Your task to perform on an android device: toggle sleep mode Image 0: 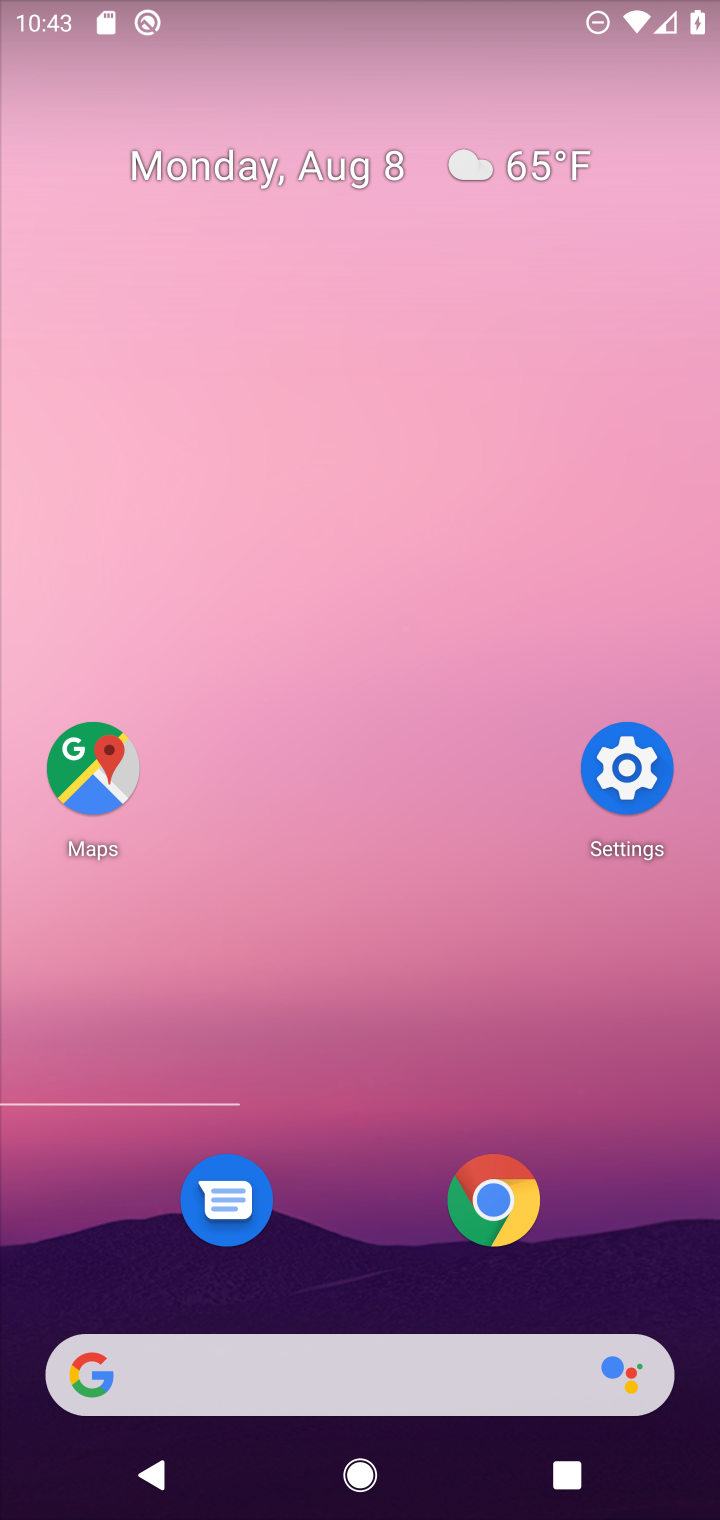
Step 0: click (634, 753)
Your task to perform on an android device: toggle sleep mode Image 1: 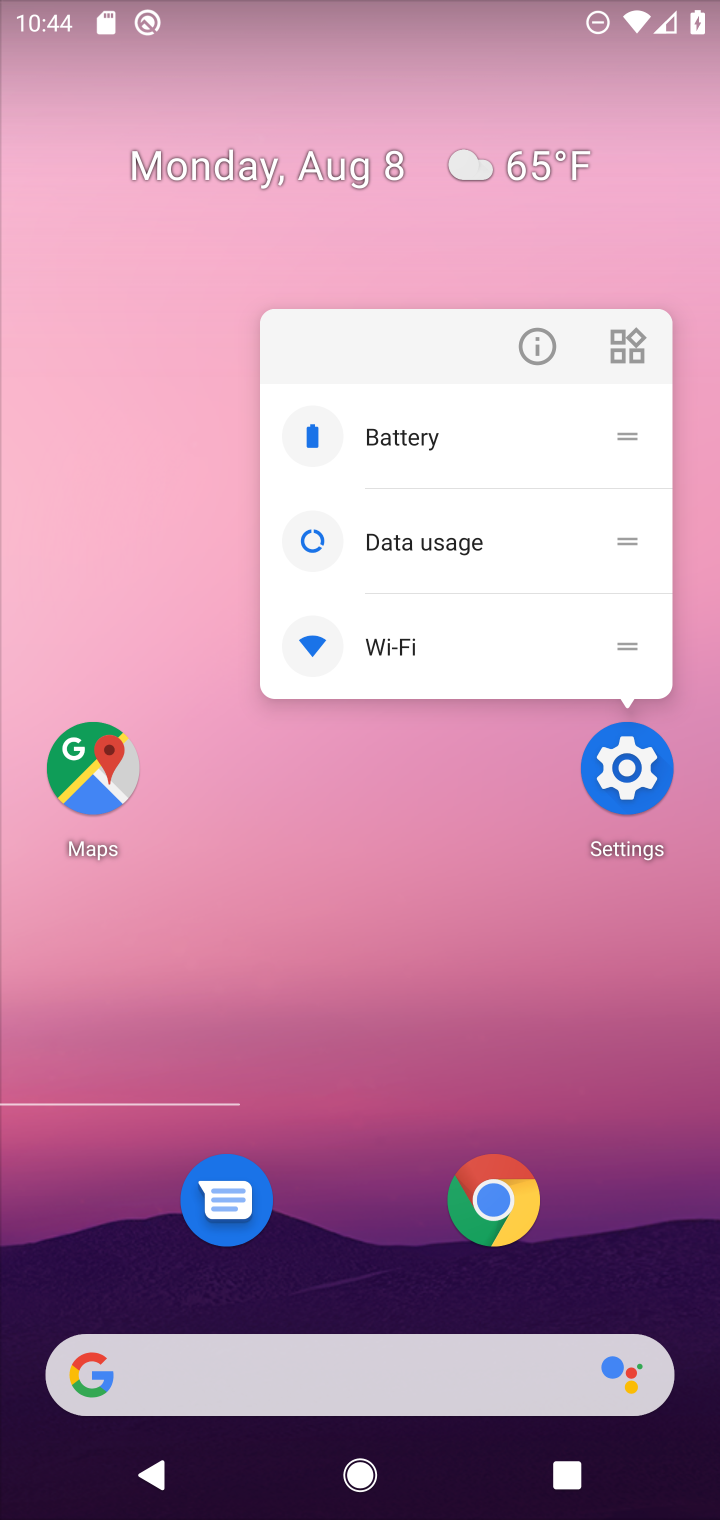
Step 1: click (628, 769)
Your task to perform on an android device: toggle sleep mode Image 2: 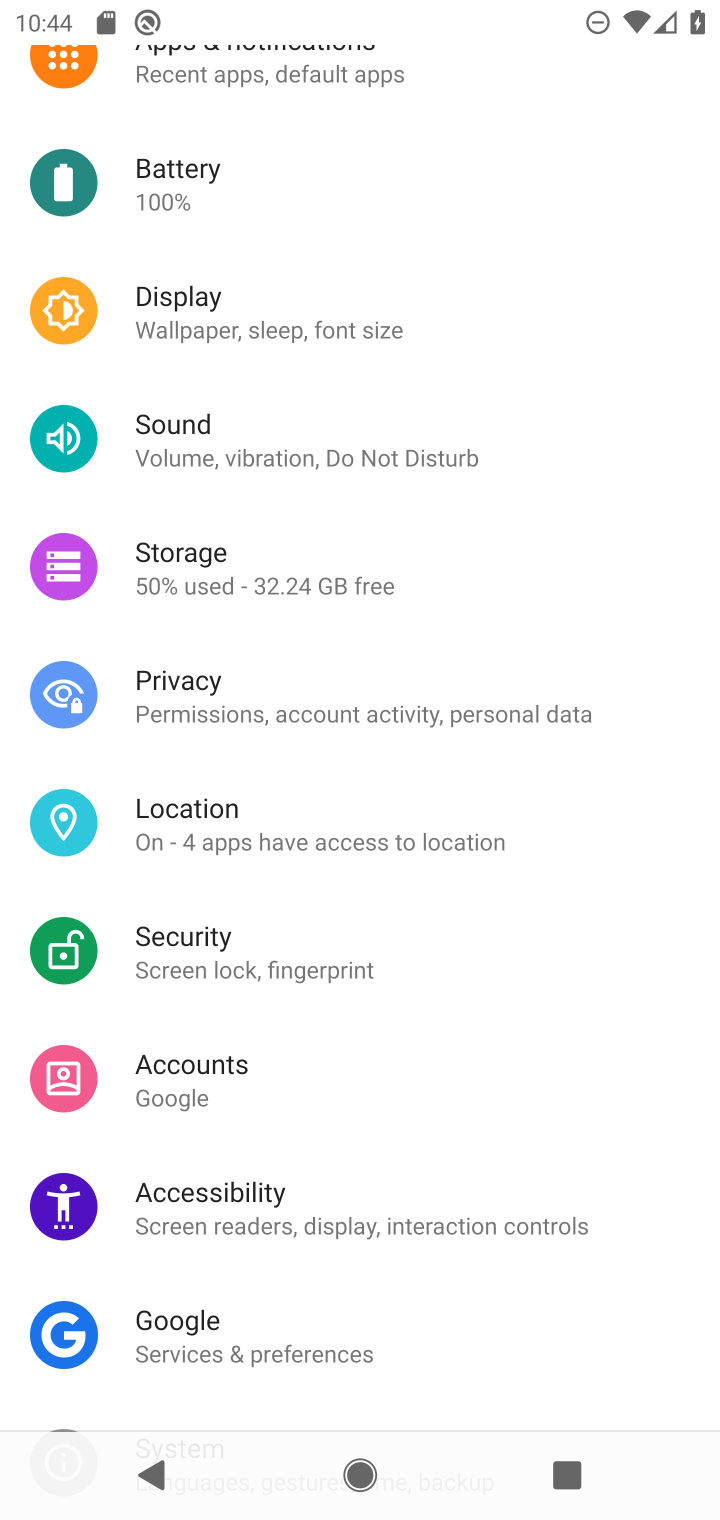
Step 2: click (219, 312)
Your task to perform on an android device: toggle sleep mode Image 3: 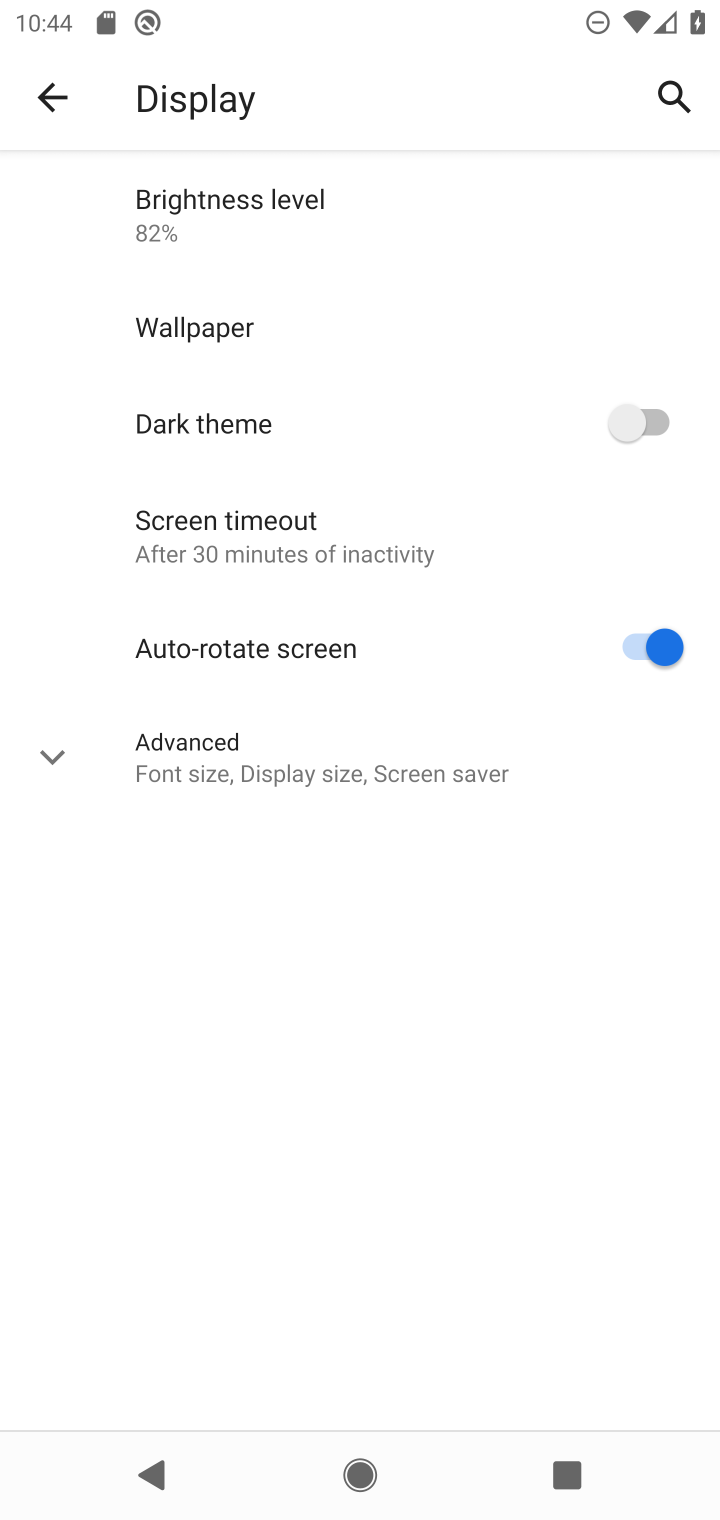
Step 3: task complete